Your task to perform on an android device: turn on data saver in the chrome app Image 0: 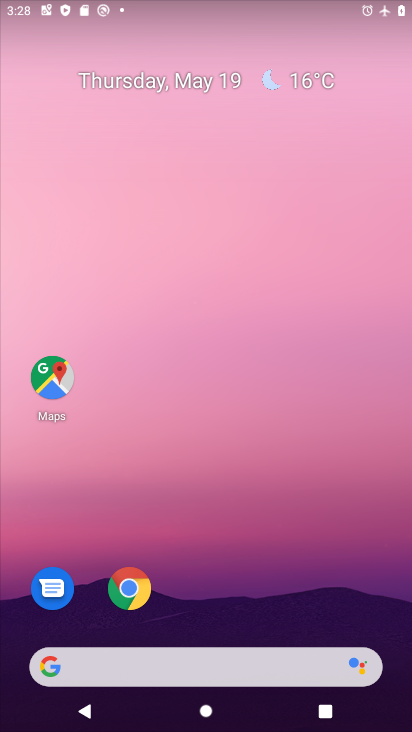
Step 0: click (136, 576)
Your task to perform on an android device: turn on data saver in the chrome app Image 1: 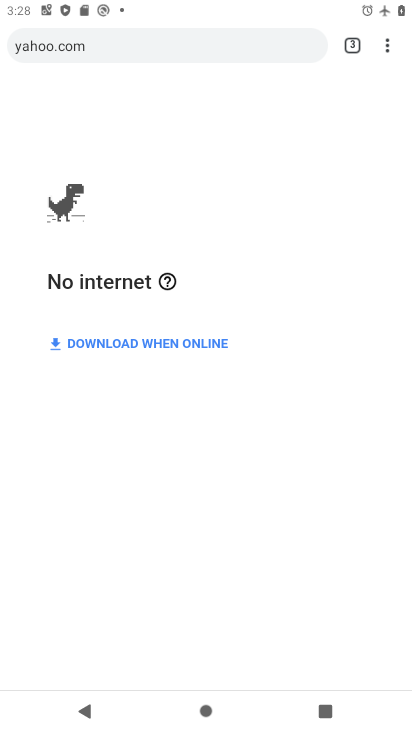
Step 1: drag from (388, 45) to (229, 515)
Your task to perform on an android device: turn on data saver in the chrome app Image 2: 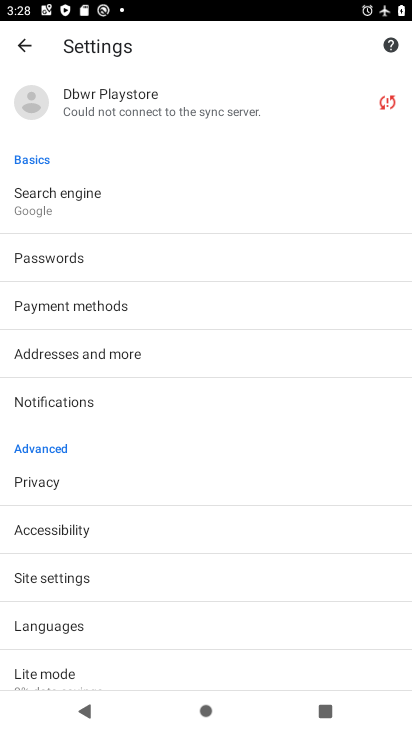
Step 2: click (56, 665)
Your task to perform on an android device: turn on data saver in the chrome app Image 3: 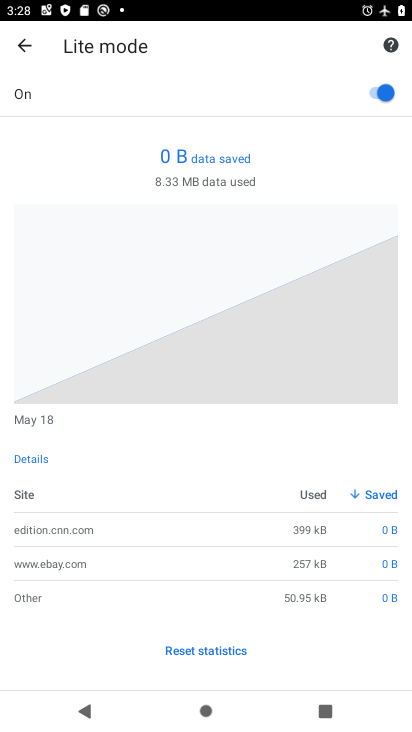
Step 3: click (369, 93)
Your task to perform on an android device: turn on data saver in the chrome app Image 4: 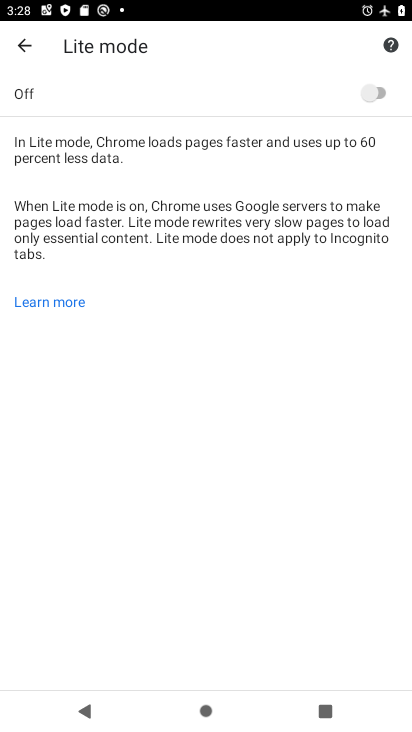
Step 4: click (373, 90)
Your task to perform on an android device: turn on data saver in the chrome app Image 5: 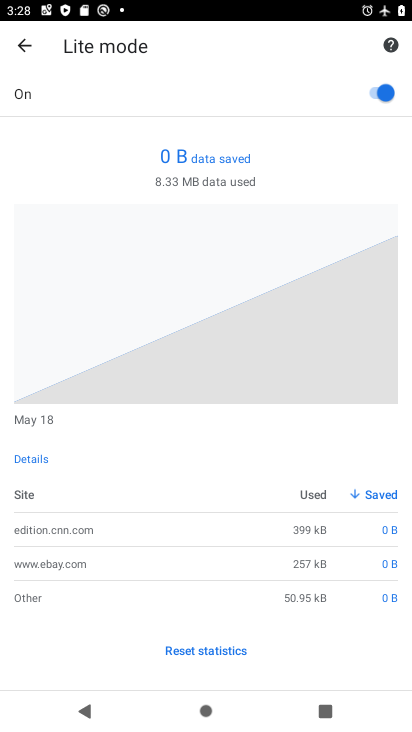
Step 5: task complete